Your task to perform on an android device: turn notification dots off Image 0: 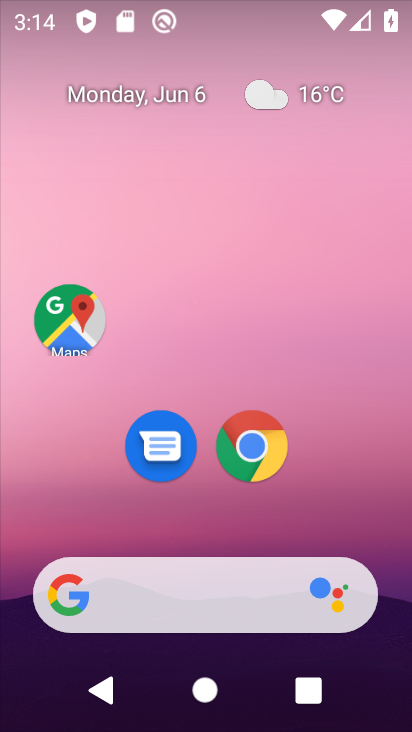
Step 0: drag from (148, 547) to (219, 143)
Your task to perform on an android device: turn notification dots off Image 1: 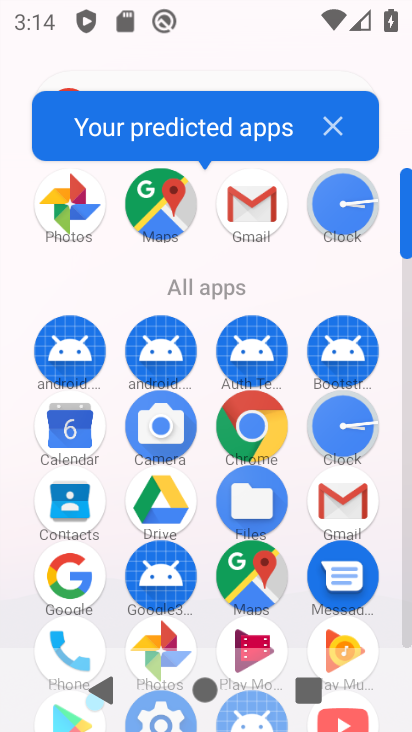
Step 1: drag from (160, 605) to (296, 296)
Your task to perform on an android device: turn notification dots off Image 2: 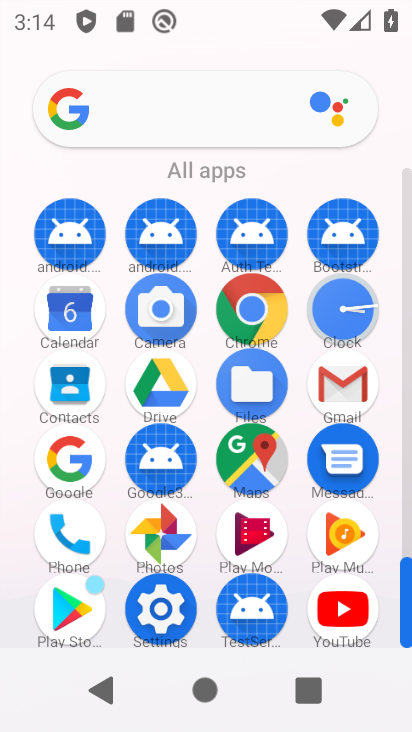
Step 2: click (155, 617)
Your task to perform on an android device: turn notification dots off Image 3: 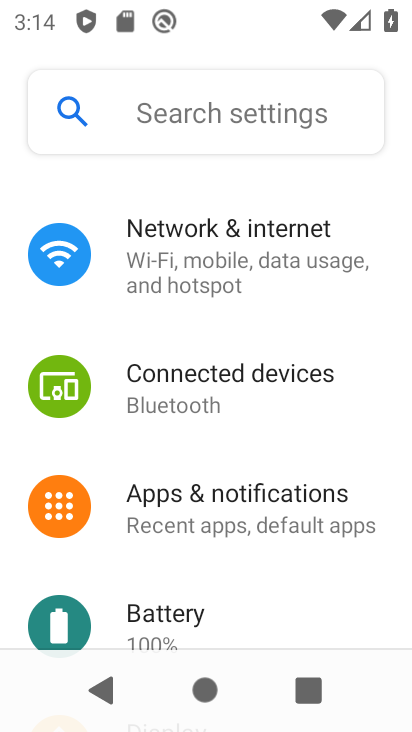
Step 3: drag from (197, 539) to (264, 254)
Your task to perform on an android device: turn notification dots off Image 4: 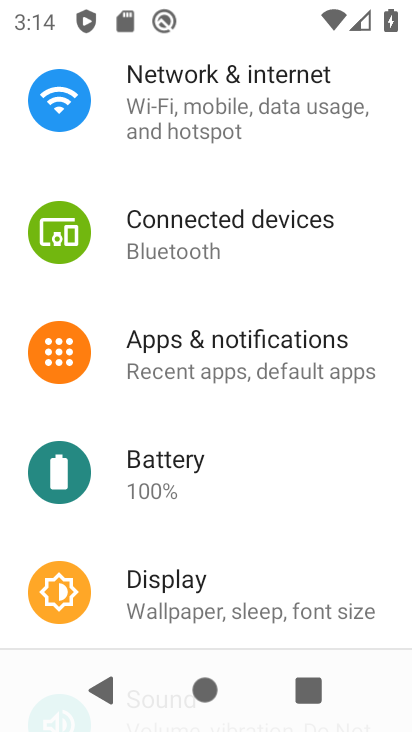
Step 4: click (235, 357)
Your task to perform on an android device: turn notification dots off Image 5: 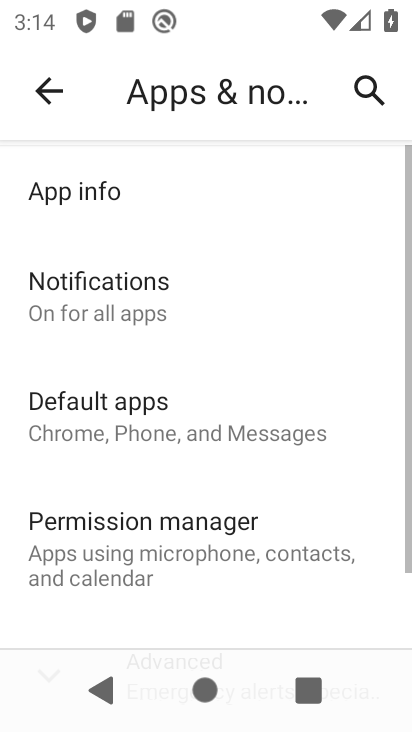
Step 5: drag from (148, 620) to (270, 242)
Your task to perform on an android device: turn notification dots off Image 6: 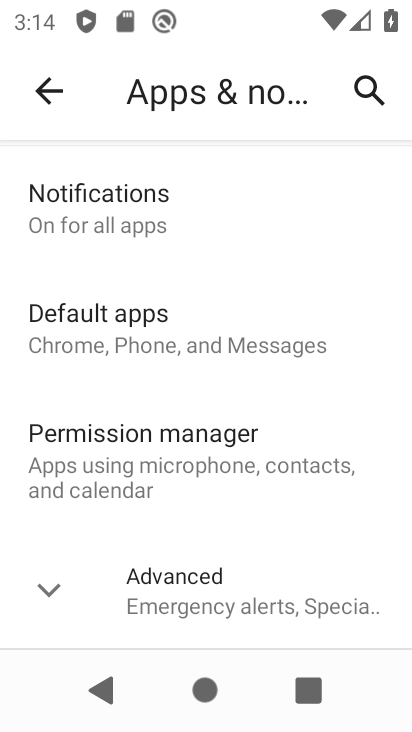
Step 6: click (161, 235)
Your task to perform on an android device: turn notification dots off Image 7: 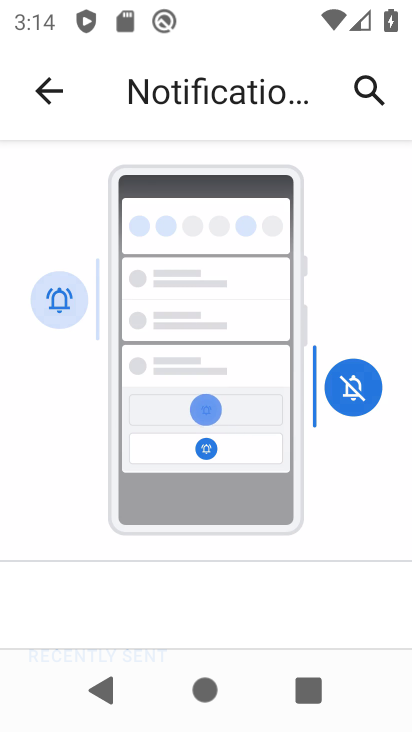
Step 7: drag from (119, 567) to (261, 120)
Your task to perform on an android device: turn notification dots off Image 8: 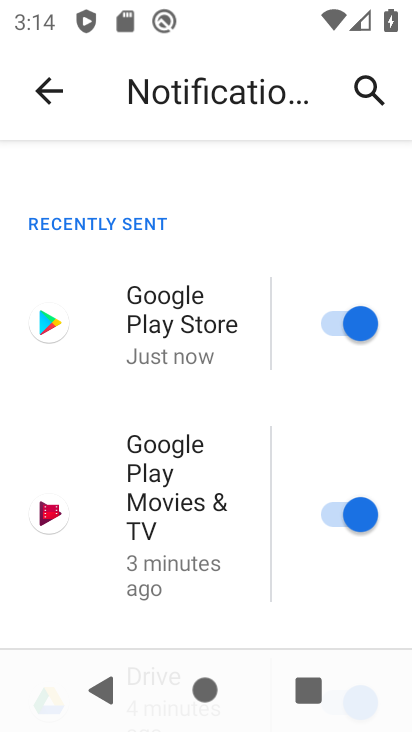
Step 8: drag from (172, 545) to (323, 142)
Your task to perform on an android device: turn notification dots off Image 9: 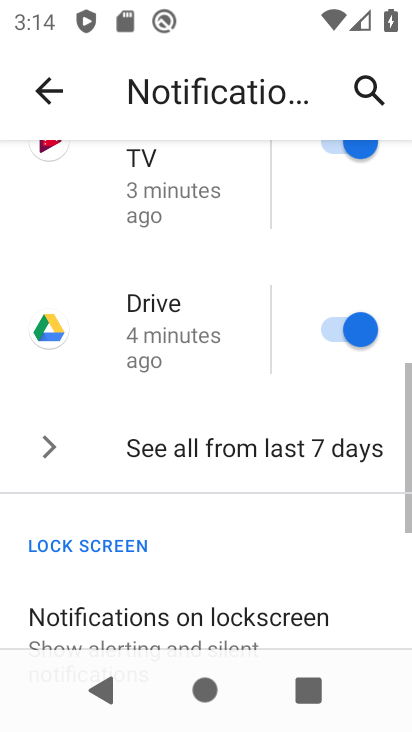
Step 9: drag from (153, 589) to (261, 262)
Your task to perform on an android device: turn notification dots off Image 10: 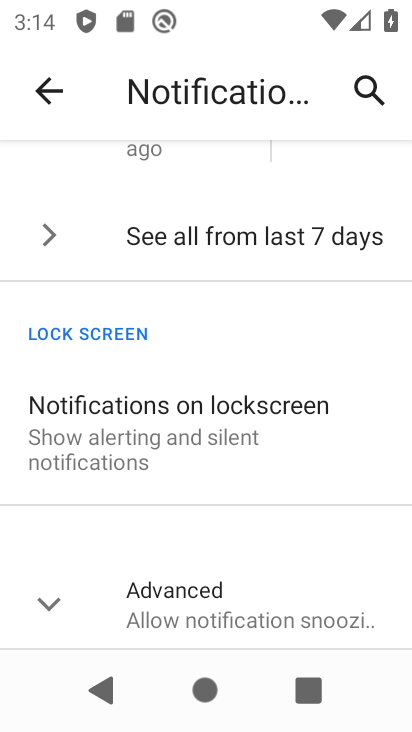
Step 10: click (227, 601)
Your task to perform on an android device: turn notification dots off Image 11: 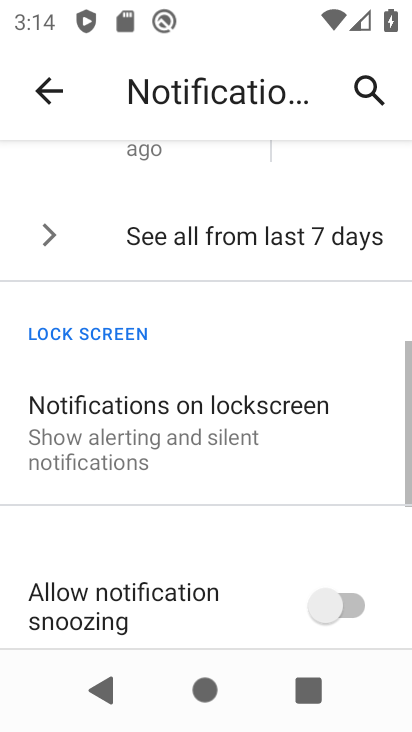
Step 11: drag from (227, 601) to (371, 168)
Your task to perform on an android device: turn notification dots off Image 12: 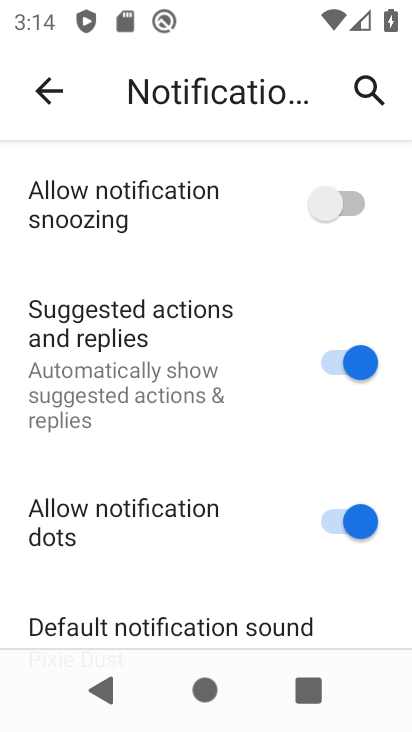
Step 12: click (342, 507)
Your task to perform on an android device: turn notification dots off Image 13: 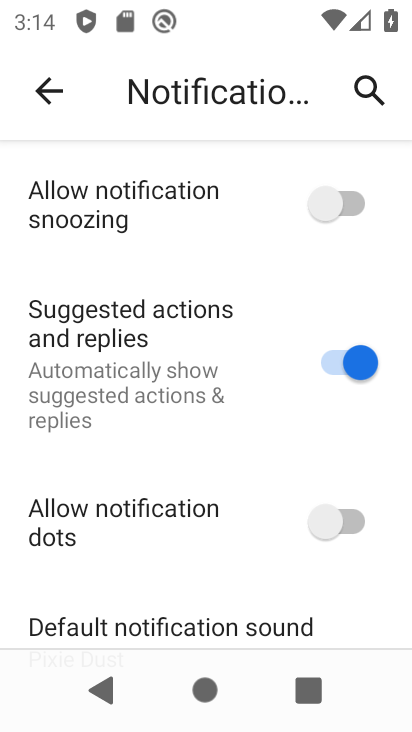
Step 13: task complete